Your task to perform on an android device: turn off improve location accuracy Image 0: 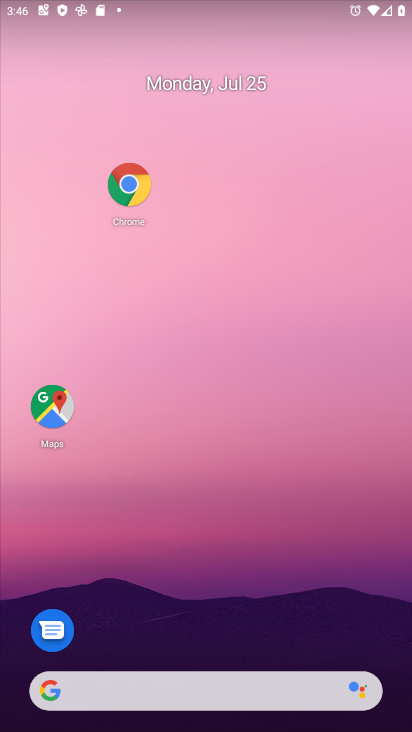
Step 0: drag from (301, 624) to (411, 68)
Your task to perform on an android device: turn off improve location accuracy Image 1: 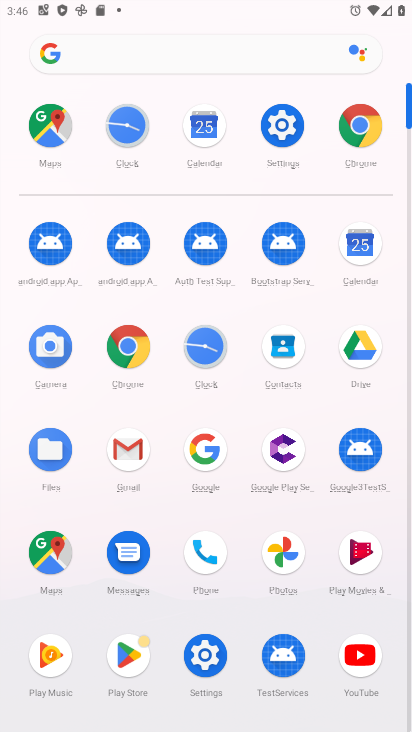
Step 1: click (284, 152)
Your task to perform on an android device: turn off improve location accuracy Image 2: 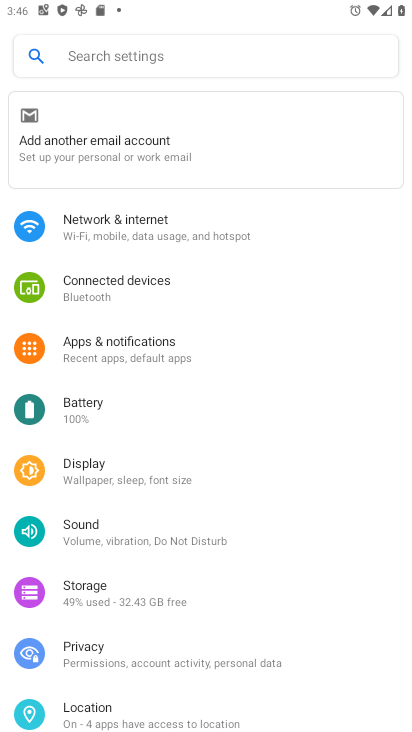
Step 2: click (192, 725)
Your task to perform on an android device: turn off improve location accuracy Image 3: 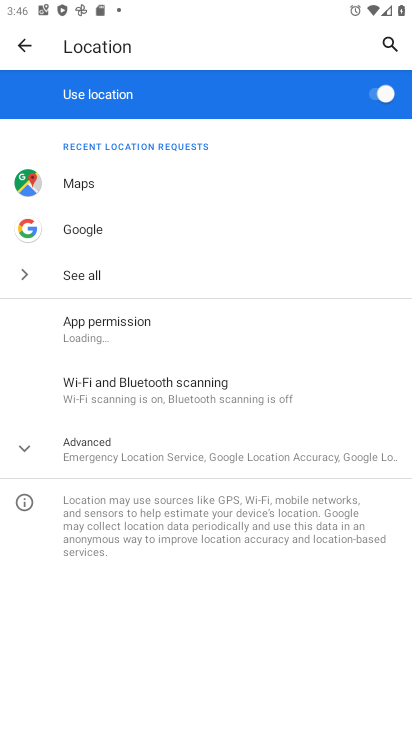
Step 3: task complete